Your task to perform on an android device: change the clock style Image 0: 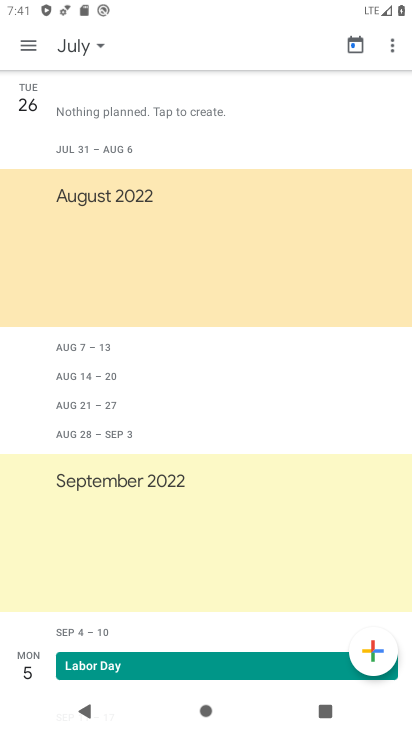
Step 0: press home button
Your task to perform on an android device: change the clock style Image 1: 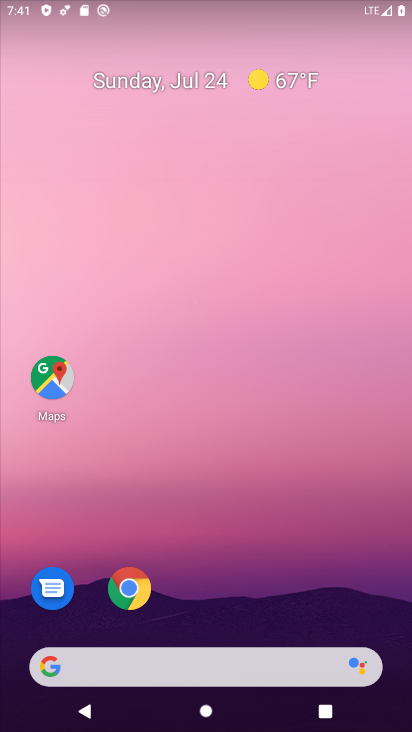
Step 1: drag from (211, 615) to (166, 233)
Your task to perform on an android device: change the clock style Image 2: 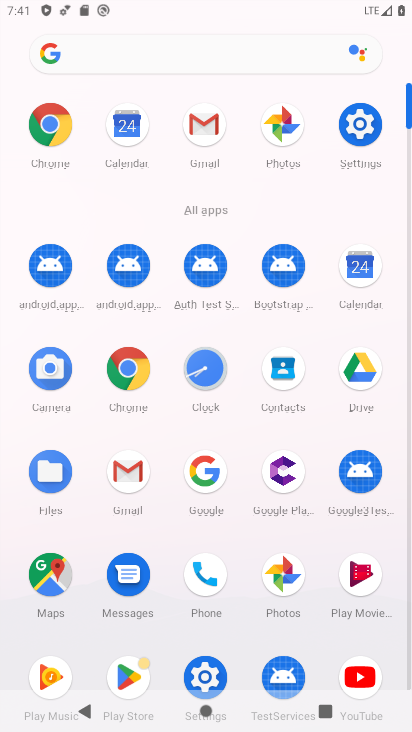
Step 2: click (207, 366)
Your task to perform on an android device: change the clock style Image 3: 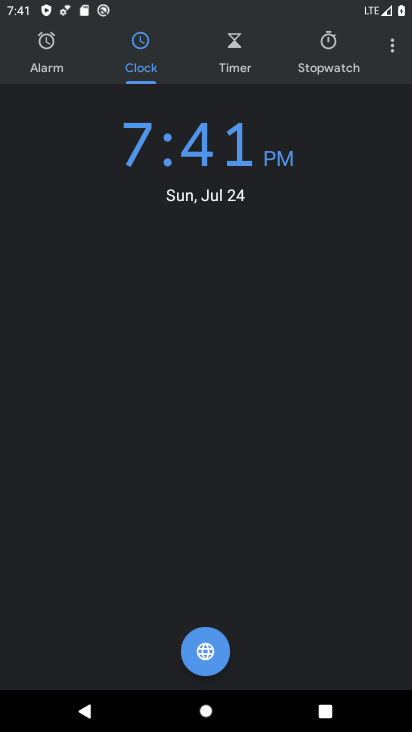
Step 3: click (395, 36)
Your task to perform on an android device: change the clock style Image 4: 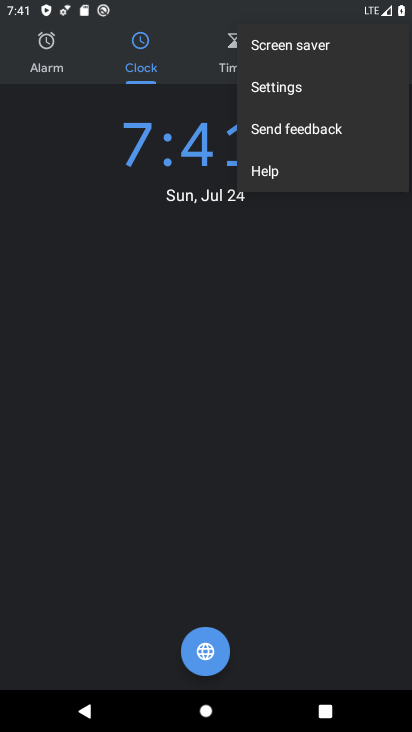
Step 4: click (323, 84)
Your task to perform on an android device: change the clock style Image 5: 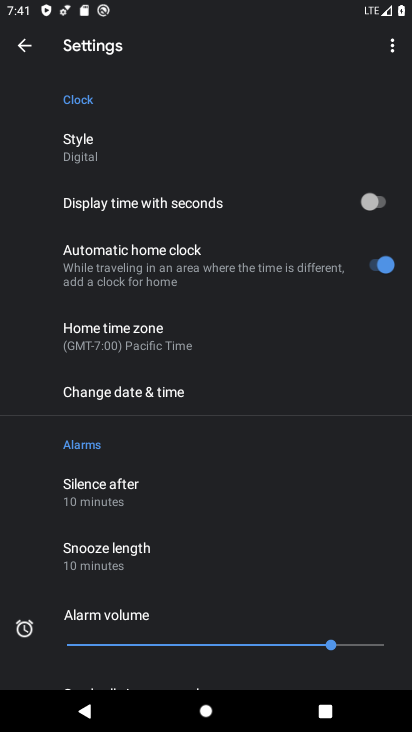
Step 5: click (93, 160)
Your task to perform on an android device: change the clock style Image 6: 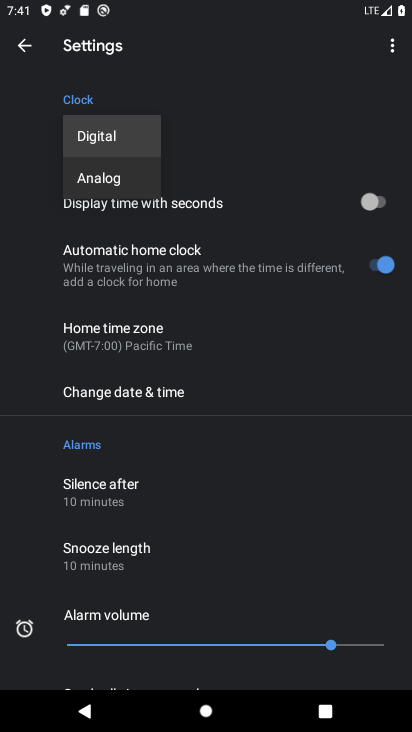
Step 6: click (103, 181)
Your task to perform on an android device: change the clock style Image 7: 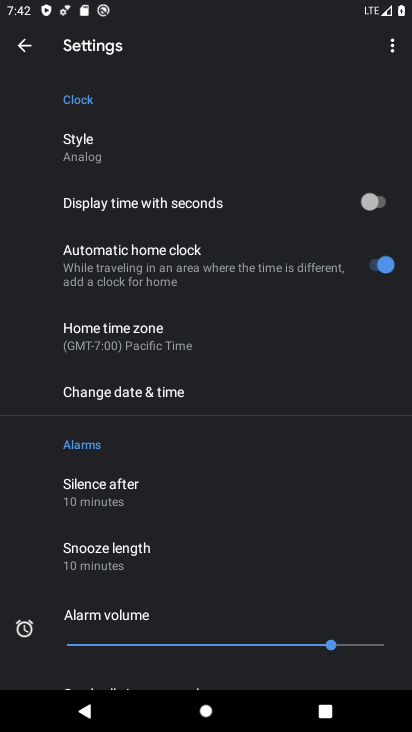
Step 7: task complete